Your task to perform on an android device: toggle wifi Image 0: 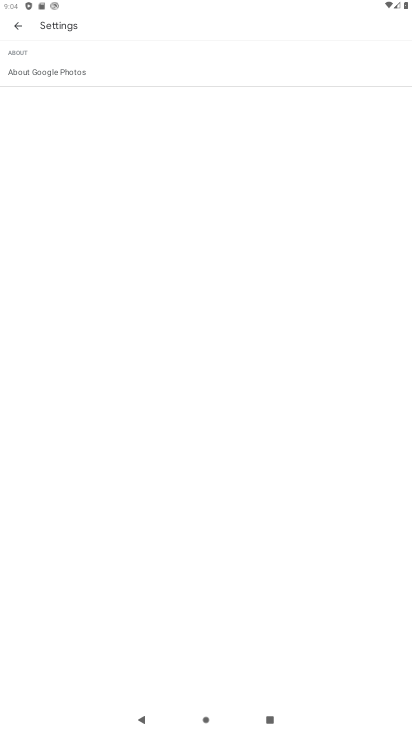
Step 0: press home button
Your task to perform on an android device: toggle wifi Image 1: 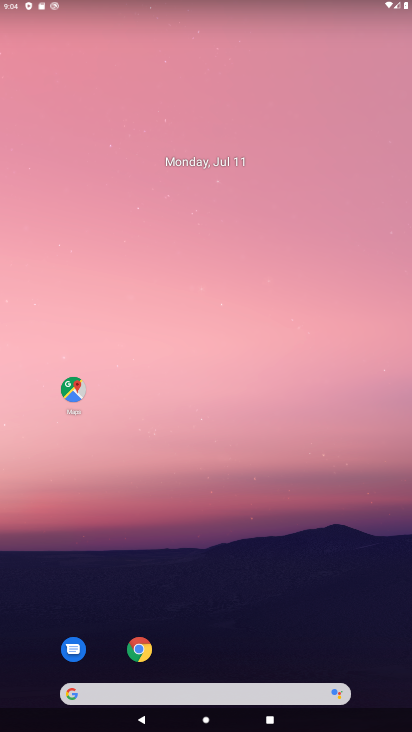
Step 1: drag from (173, 673) to (293, 103)
Your task to perform on an android device: toggle wifi Image 2: 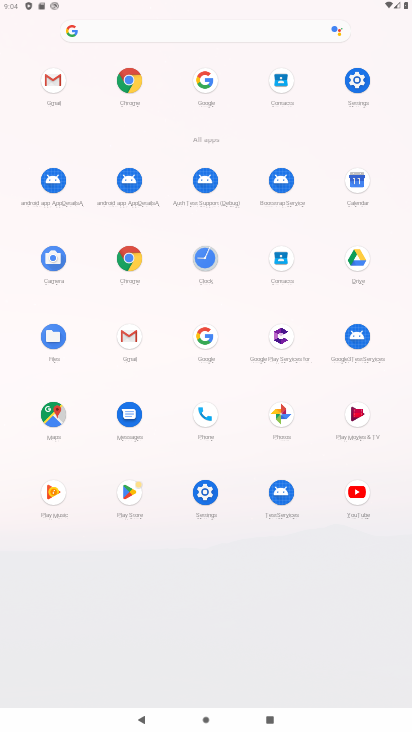
Step 2: click (211, 499)
Your task to perform on an android device: toggle wifi Image 3: 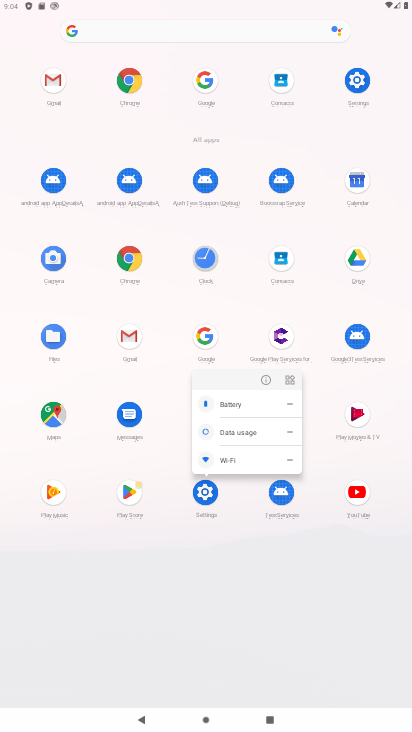
Step 3: click (210, 490)
Your task to perform on an android device: toggle wifi Image 4: 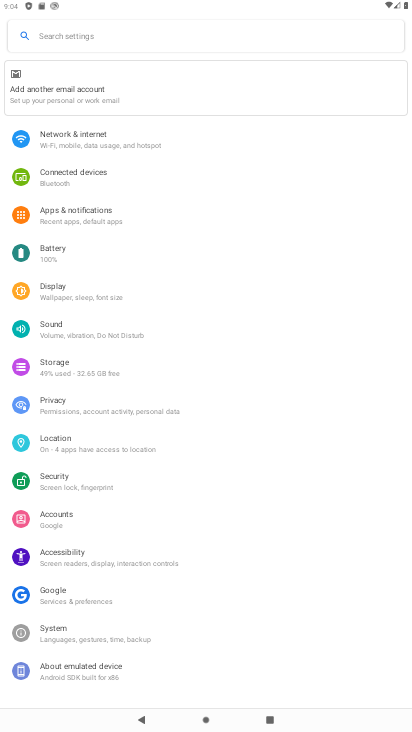
Step 4: click (125, 134)
Your task to perform on an android device: toggle wifi Image 5: 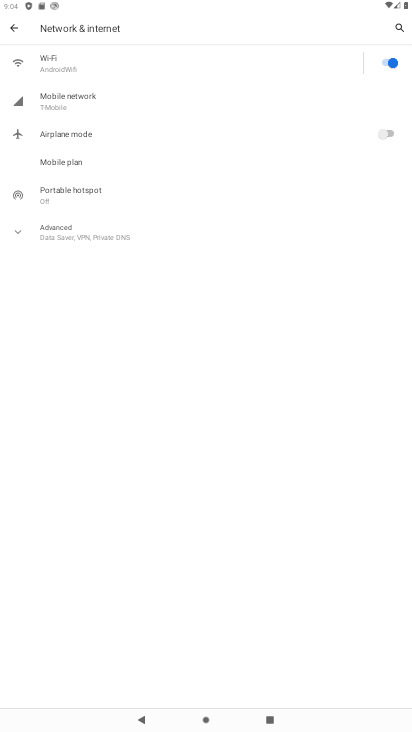
Step 5: click (379, 58)
Your task to perform on an android device: toggle wifi Image 6: 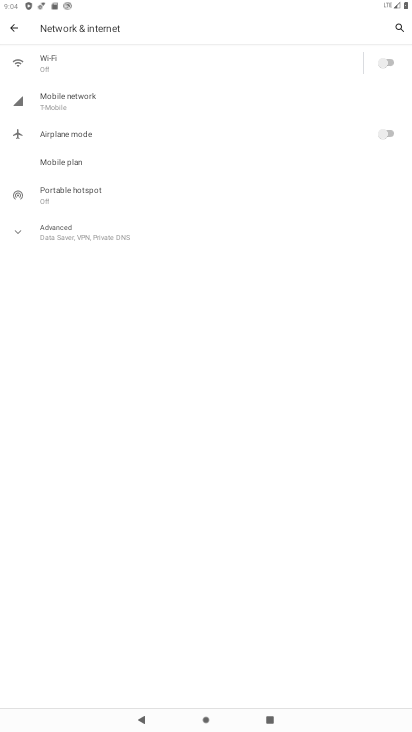
Step 6: task complete